Your task to perform on an android device: Go to wifi settings Image 0: 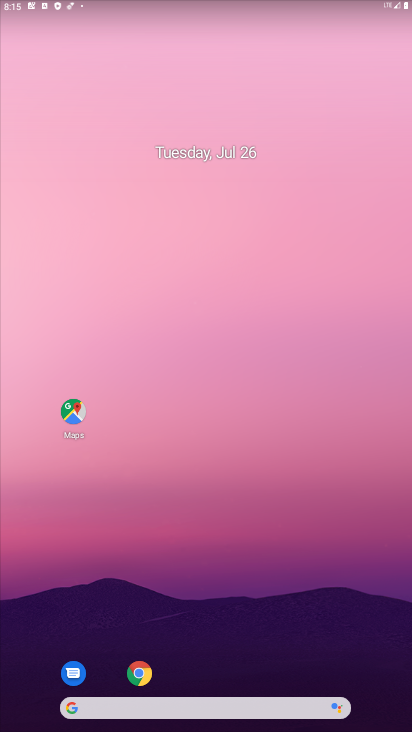
Step 0: drag from (218, 654) to (230, 205)
Your task to perform on an android device: Go to wifi settings Image 1: 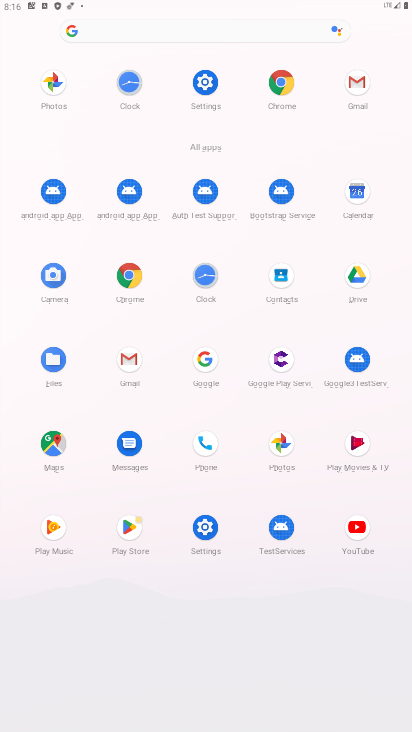
Step 1: click (210, 102)
Your task to perform on an android device: Go to wifi settings Image 2: 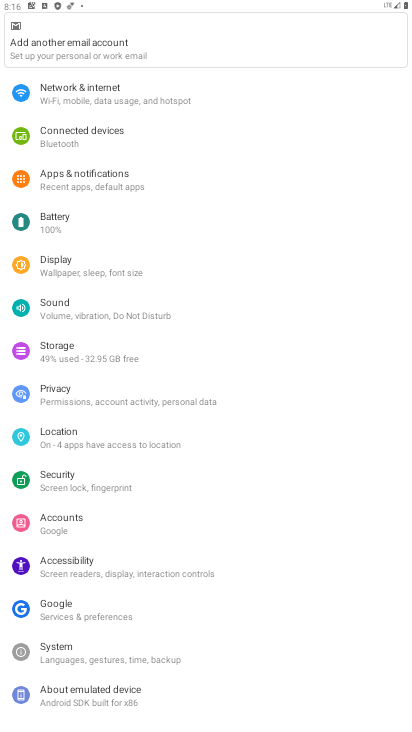
Step 2: click (117, 102)
Your task to perform on an android device: Go to wifi settings Image 3: 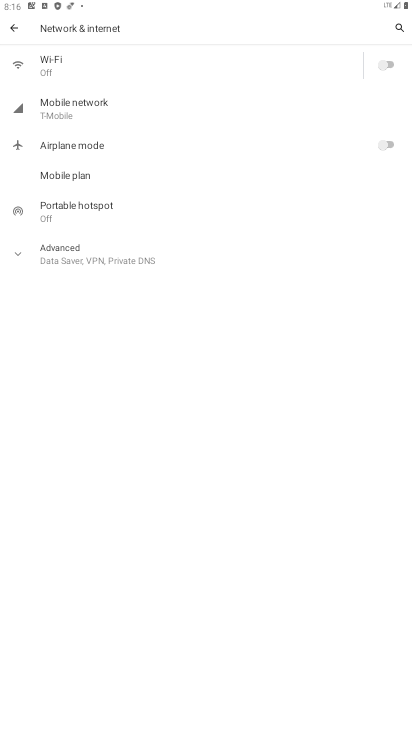
Step 3: click (63, 72)
Your task to perform on an android device: Go to wifi settings Image 4: 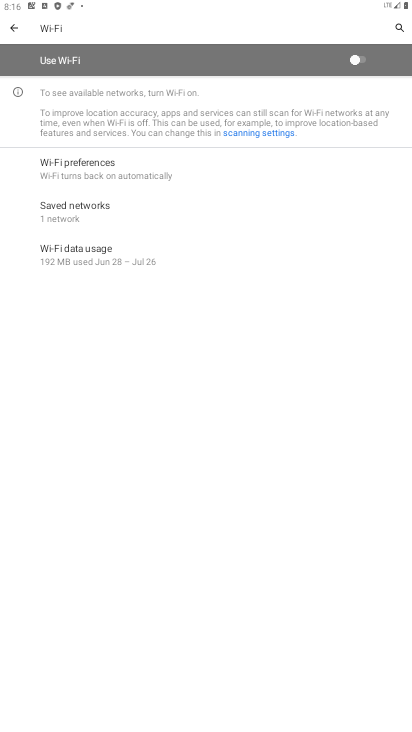
Step 4: task complete